Your task to perform on an android device: turn off notifications in google photos Image 0: 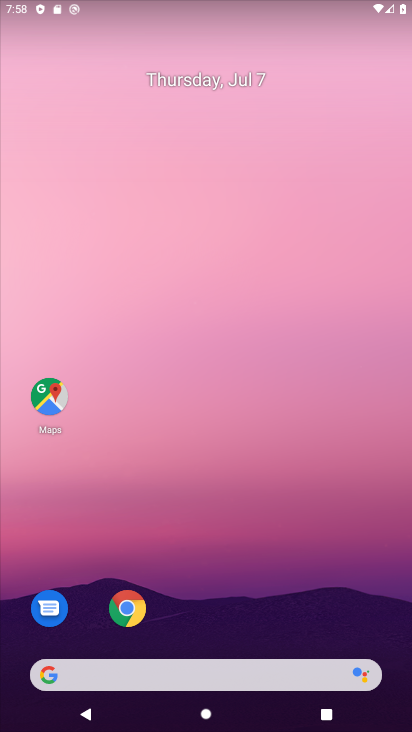
Step 0: drag from (313, 588) to (342, 141)
Your task to perform on an android device: turn off notifications in google photos Image 1: 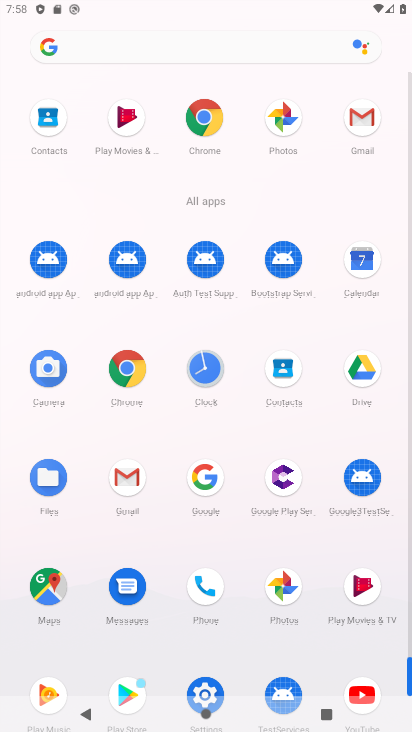
Step 1: click (290, 581)
Your task to perform on an android device: turn off notifications in google photos Image 2: 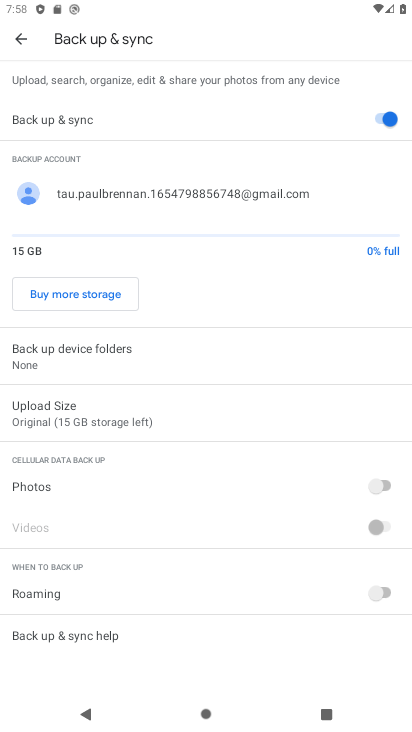
Step 2: click (23, 39)
Your task to perform on an android device: turn off notifications in google photos Image 3: 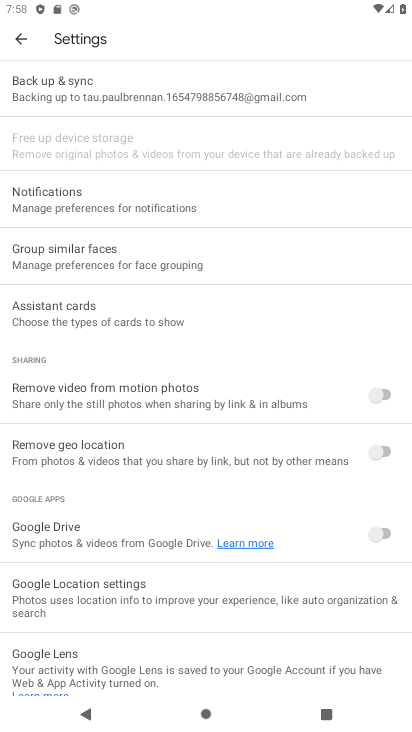
Step 3: click (70, 202)
Your task to perform on an android device: turn off notifications in google photos Image 4: 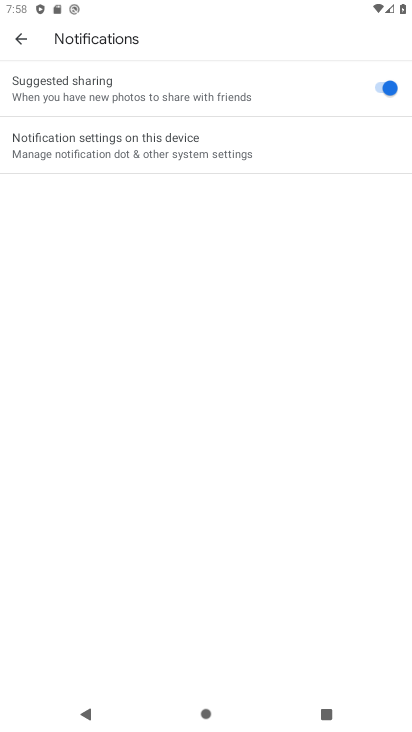
Step 4: click (105, 156)
Your task to perform on an android device: turn off notifications in google photos Image 5: 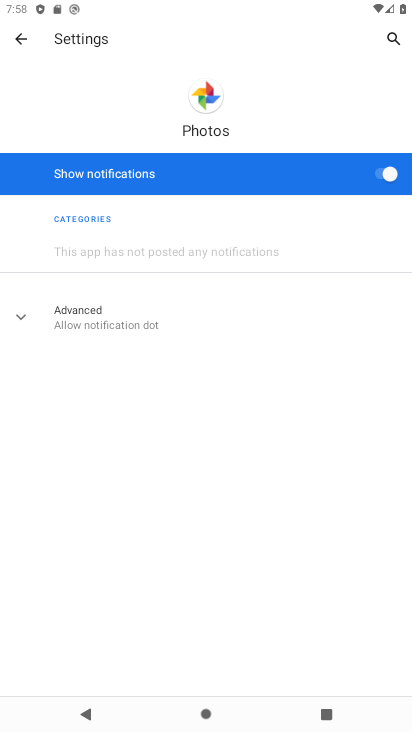
Step 5: click (386, 175)
Your task to perform on an android device: turn off notifications in google photos Image 6: 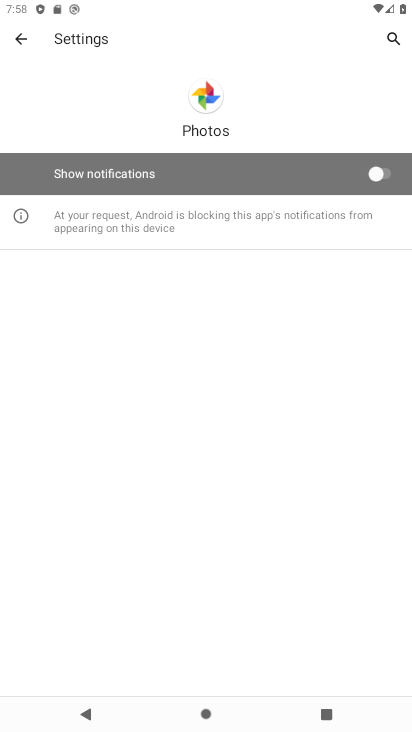
Step 6: task complete